Your task to perform on an android device: turn on translation in the chrome app Image 0: 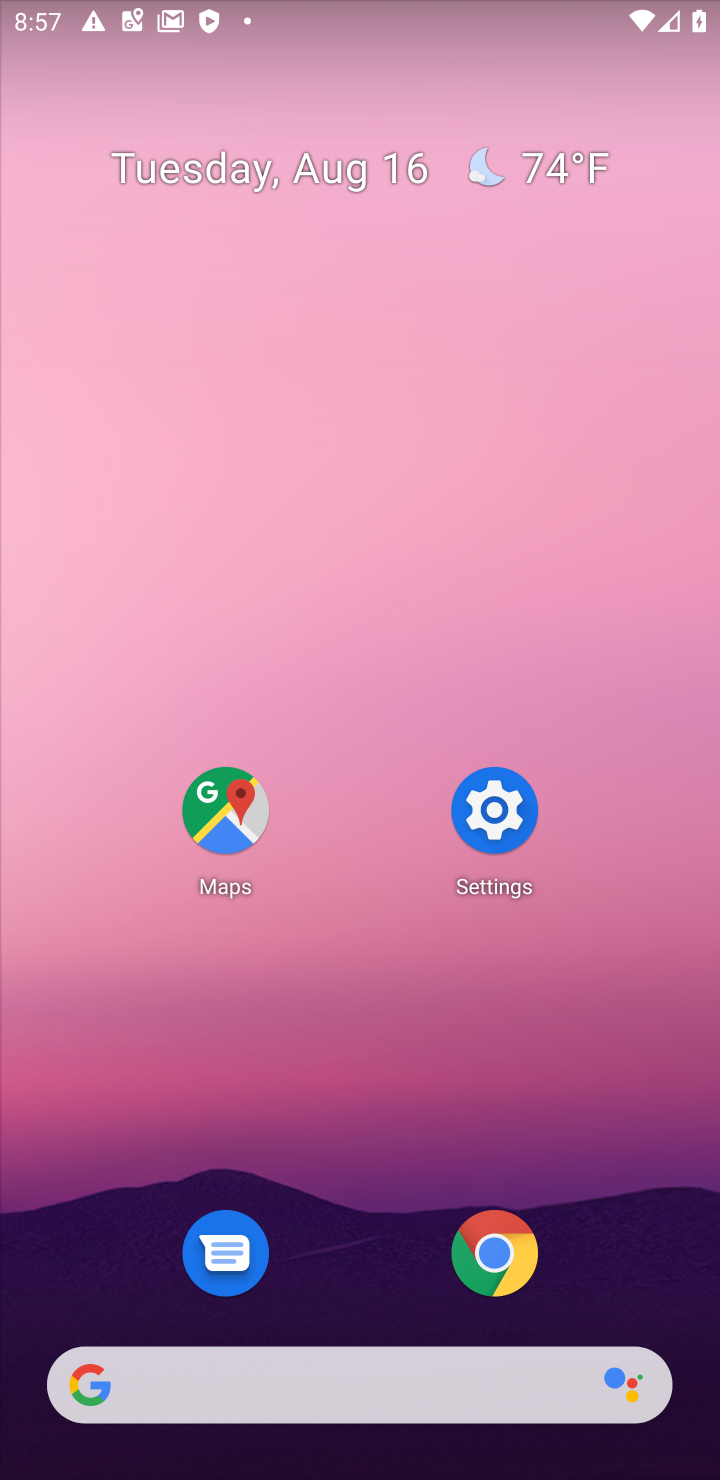
Step 0: click (496, 1248)
Your task to perform on an android device: turn on translation in the chrome app Image 1: 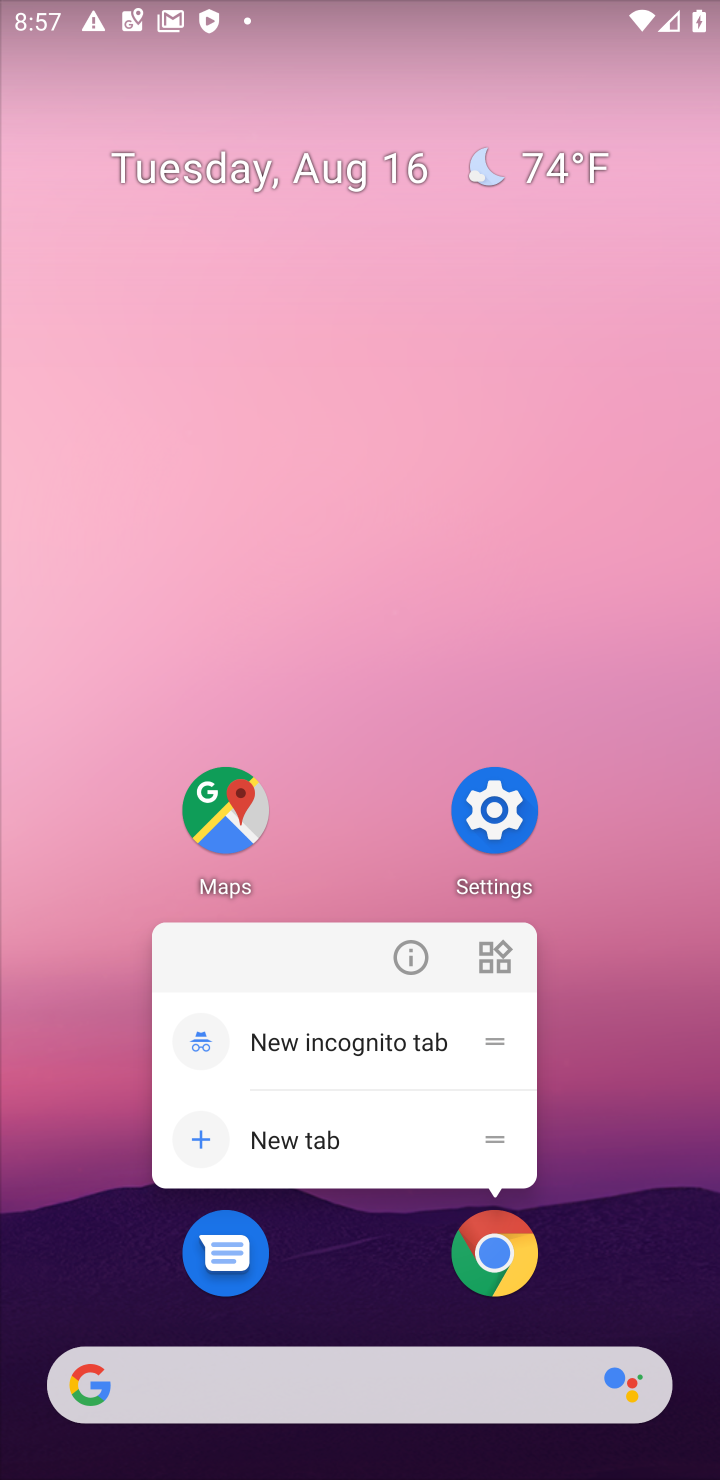
Step 1: click (496, 1250)
Your task to perform on an android device: turn on translation in the chrome app Image 2: 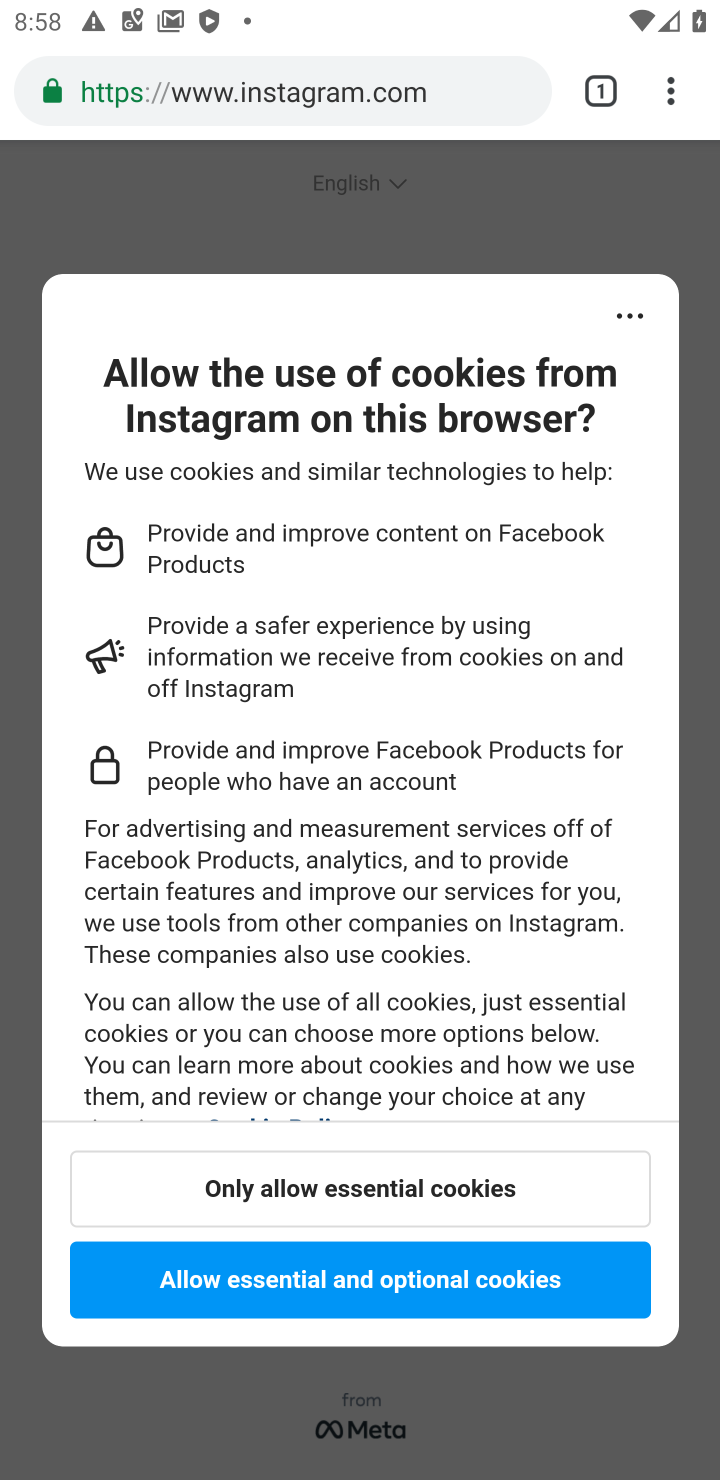
Step 2: drag from (678, 87) to (378, 1105)
Your task to perform on an android device: turn on translation in the chrome app Image 3: 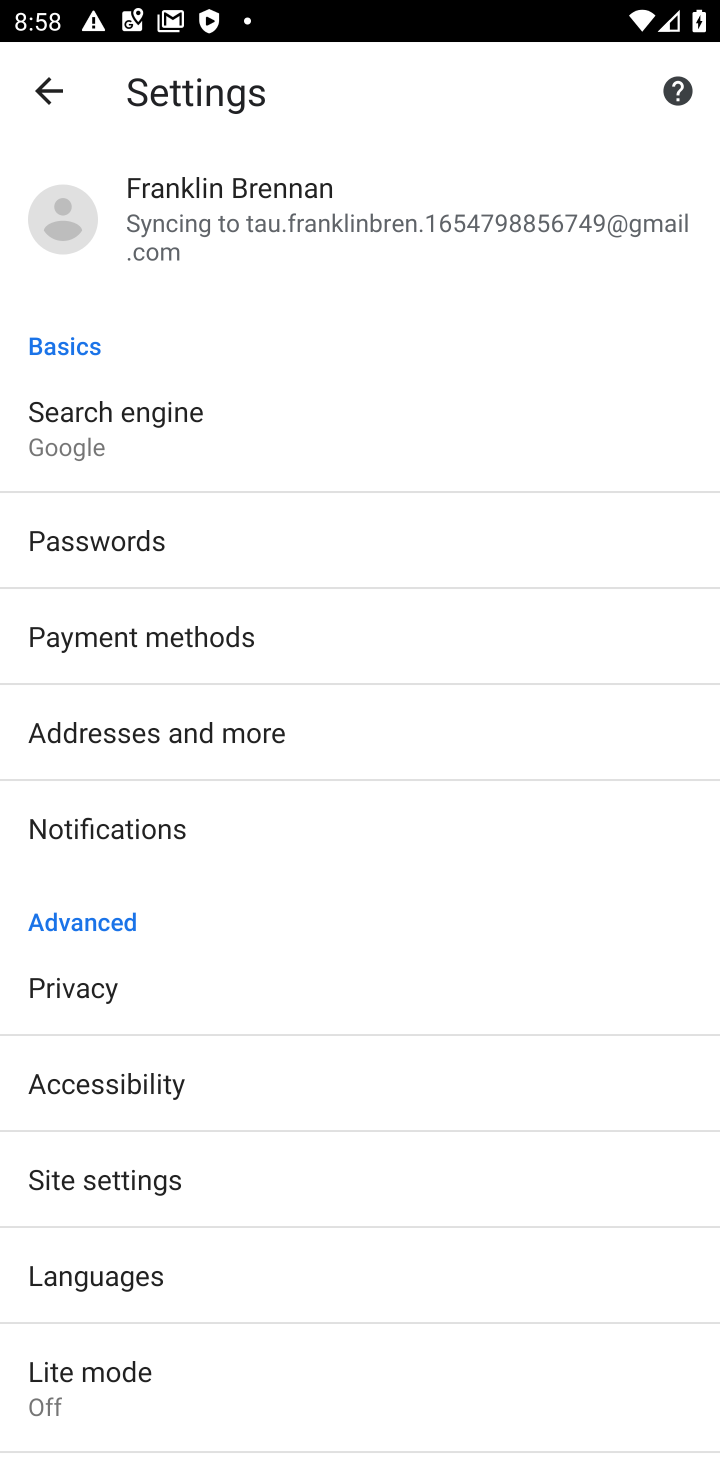
Step 3: drag from (396, 1178) to (682, 260)
Your task to perform on an android device: turn on translation in the chrome app Image 4: 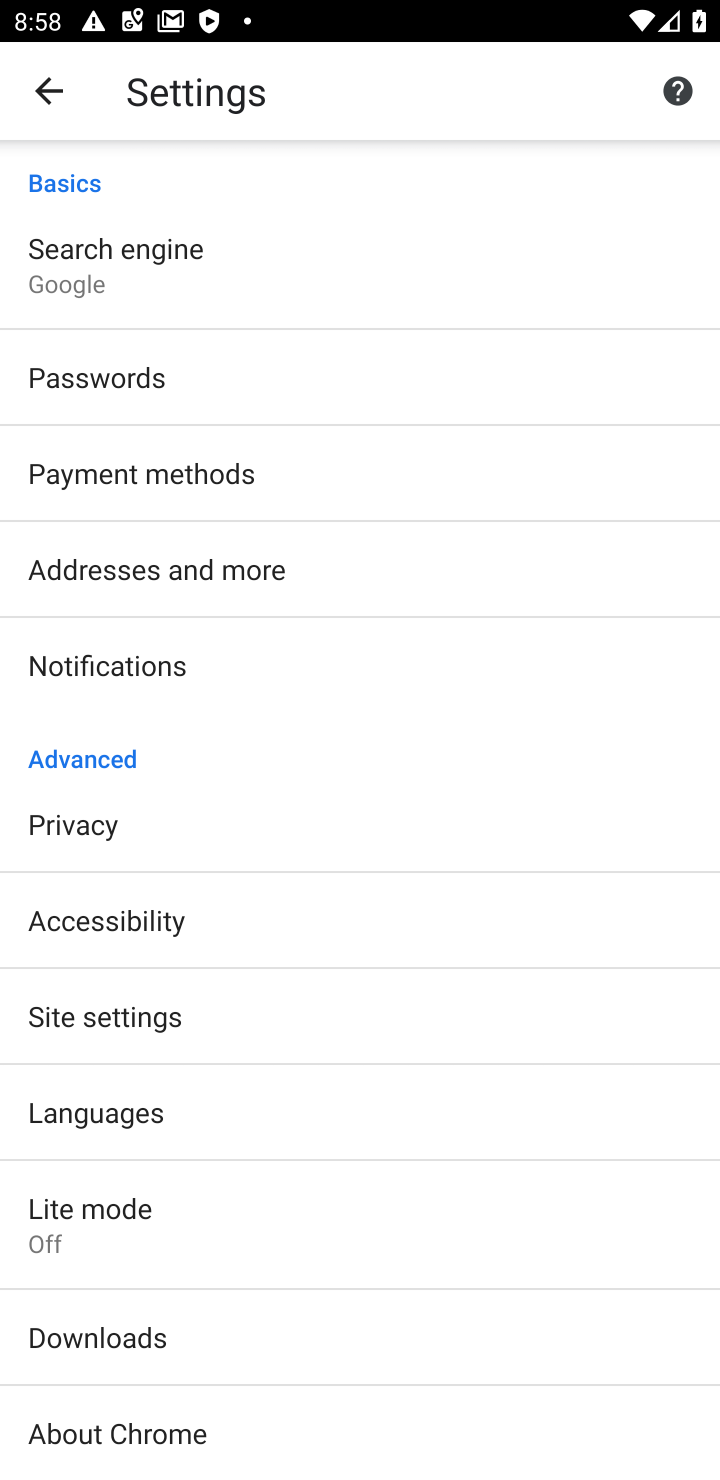
Step 4: click (145, 1115)
Your task to perform on an android device: turn on translation in the chrome app Image 5: 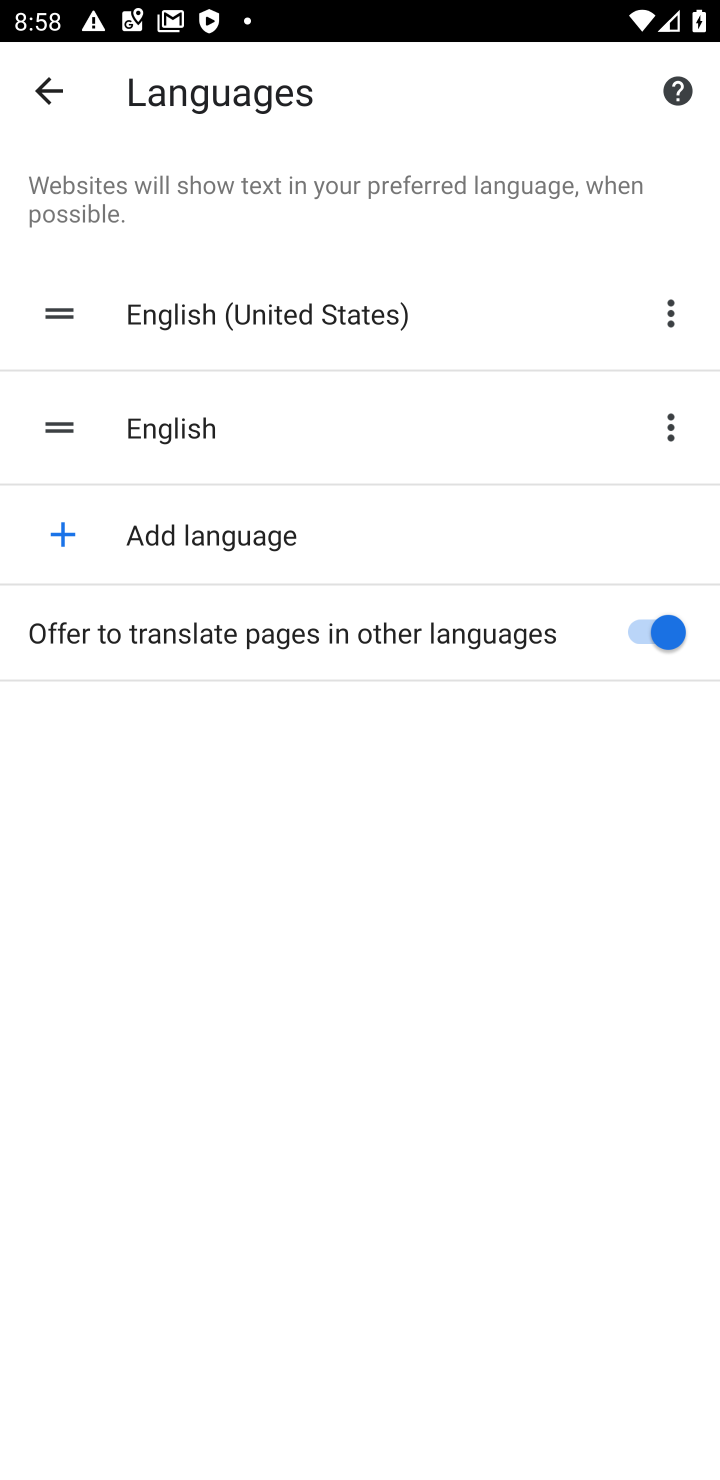
Step 5: task complete